Your task to perform on an android device: Find coffee shops on Maps Image 0: 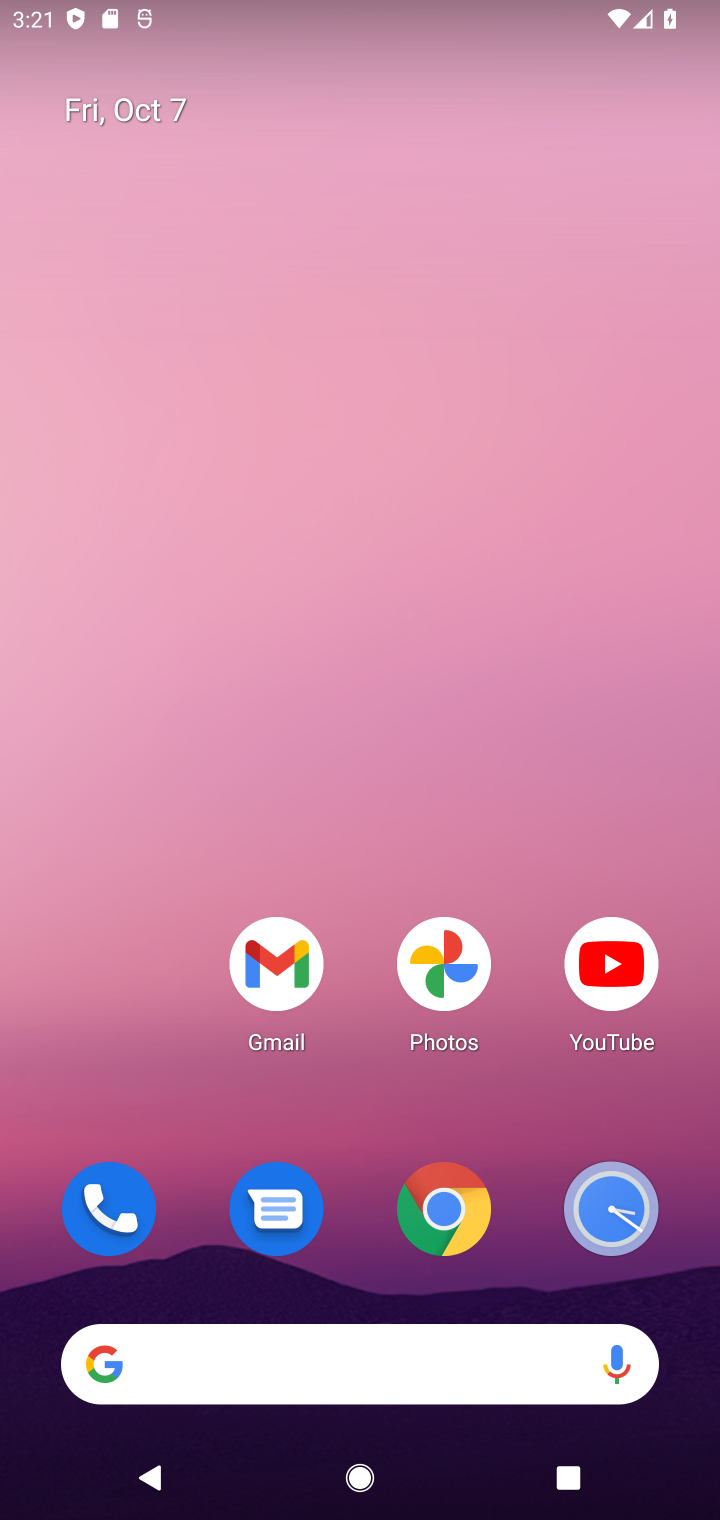
Step 0: press home button
Your task to perform on an android device: Find coffee shops on Maps Image 1: 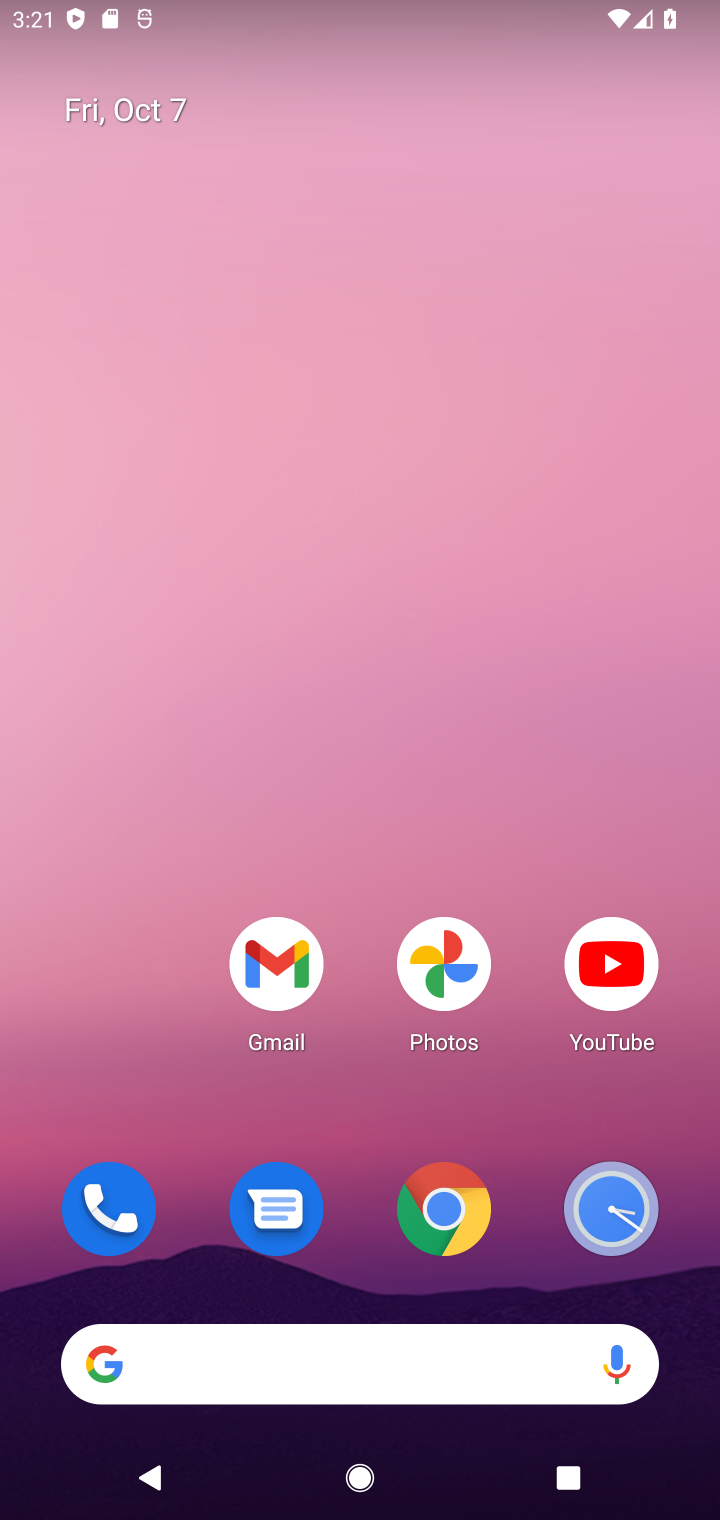
Step 1: drag from (176, 1026) to (98, 211)
Your task to perform on an android device: Find coffee shops on Maps Image 2: 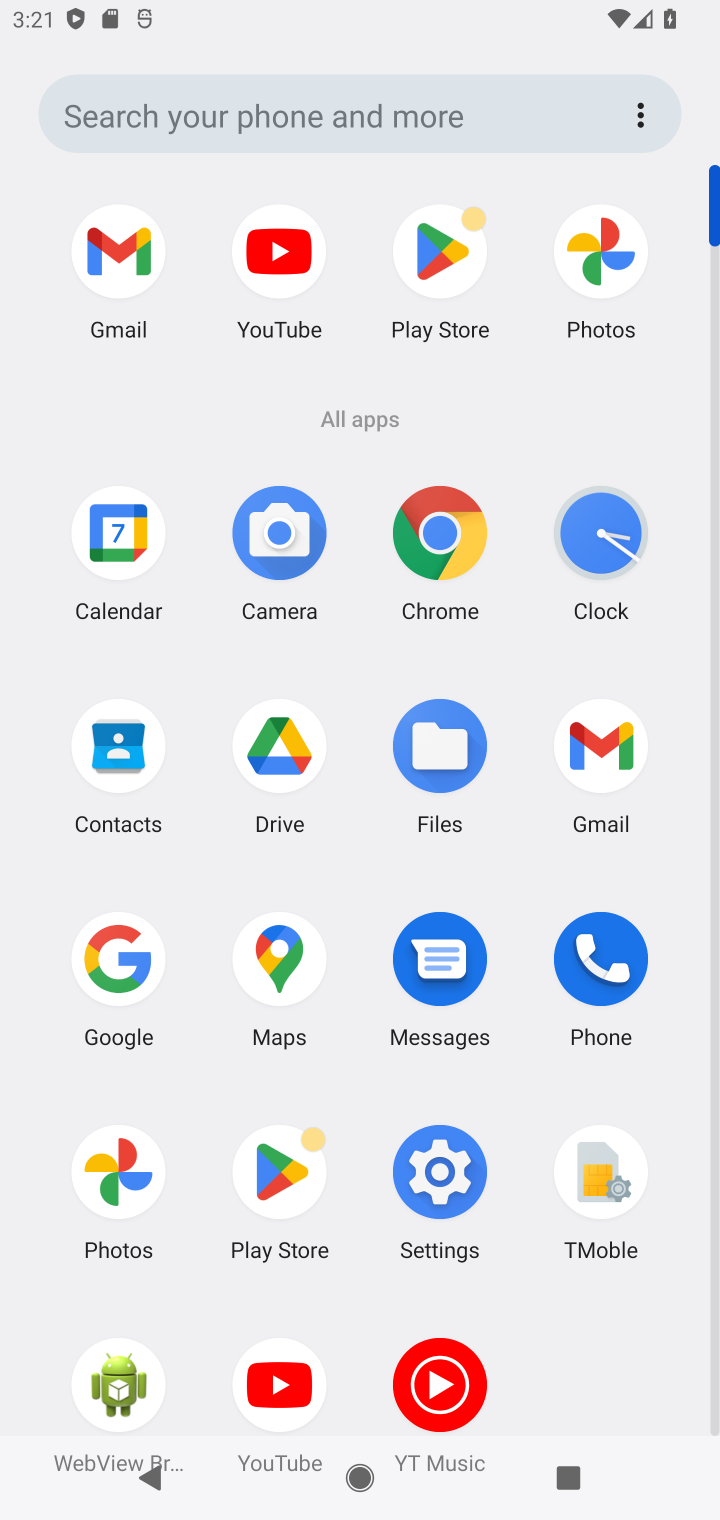
Step 2: click (287, 961)
Your task to perform on an android device: Find coffee shops on Maps Image 3: 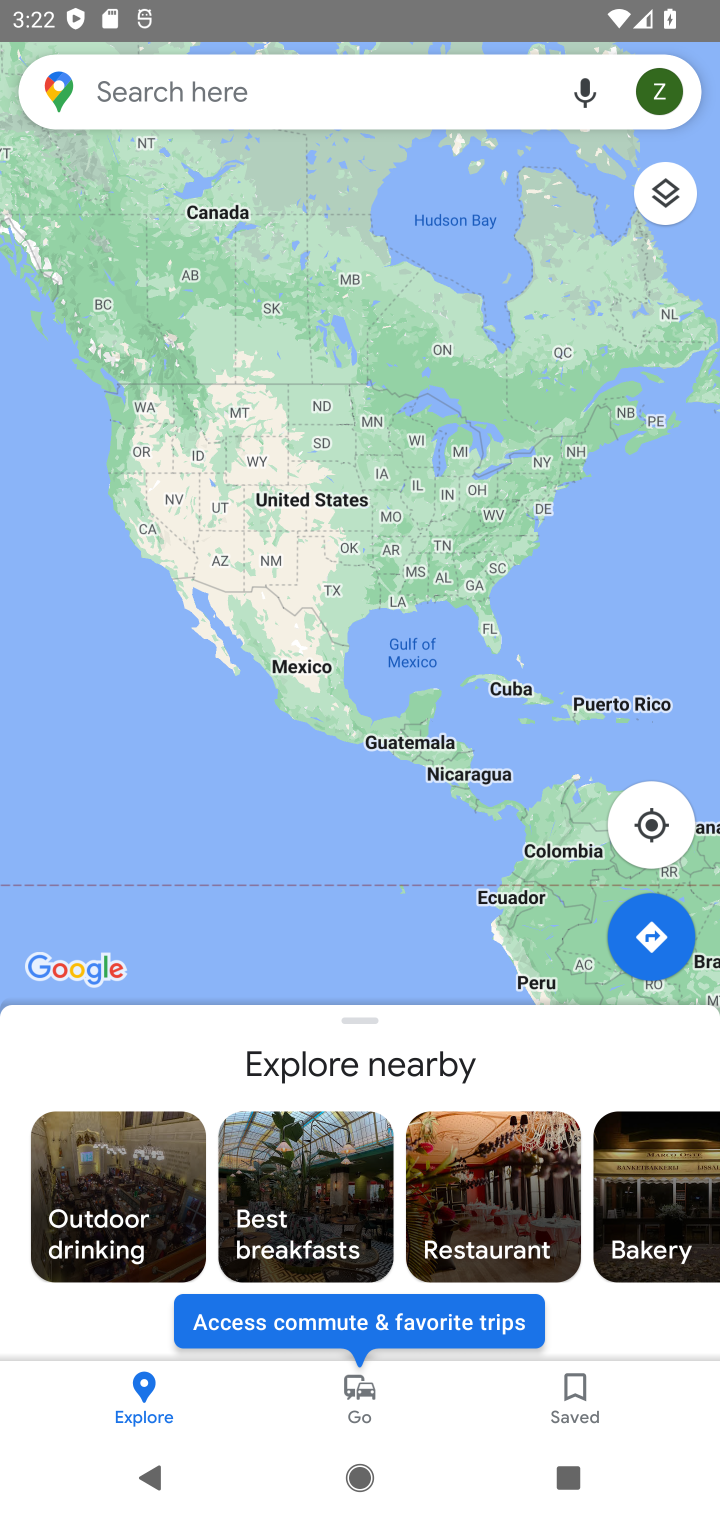
Step 3: click (260, 71)
Your task to perform on an android device: Find coffee shops on Maps Image 4: 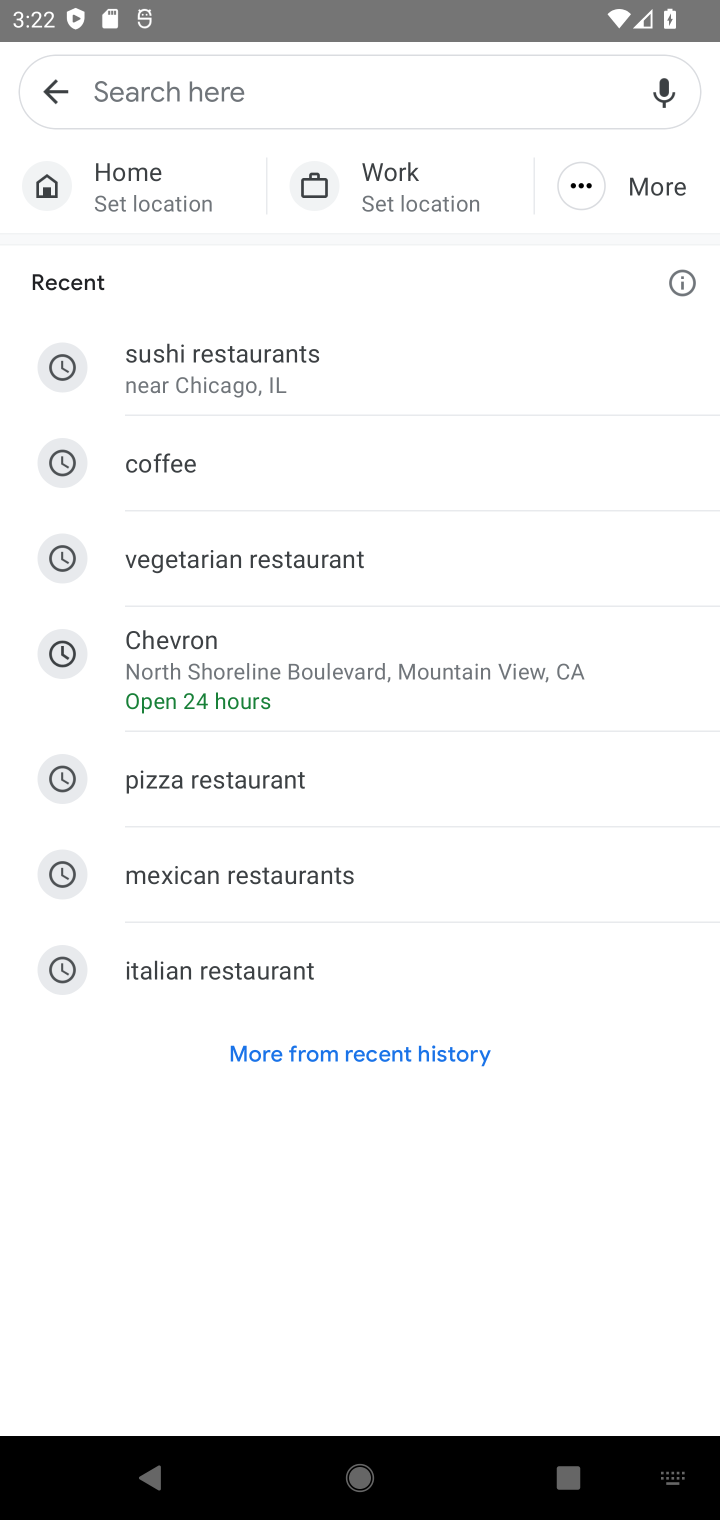
Step 4: press enter
Your task to perform on an android device: Find coffee shops on Maps Image 5: 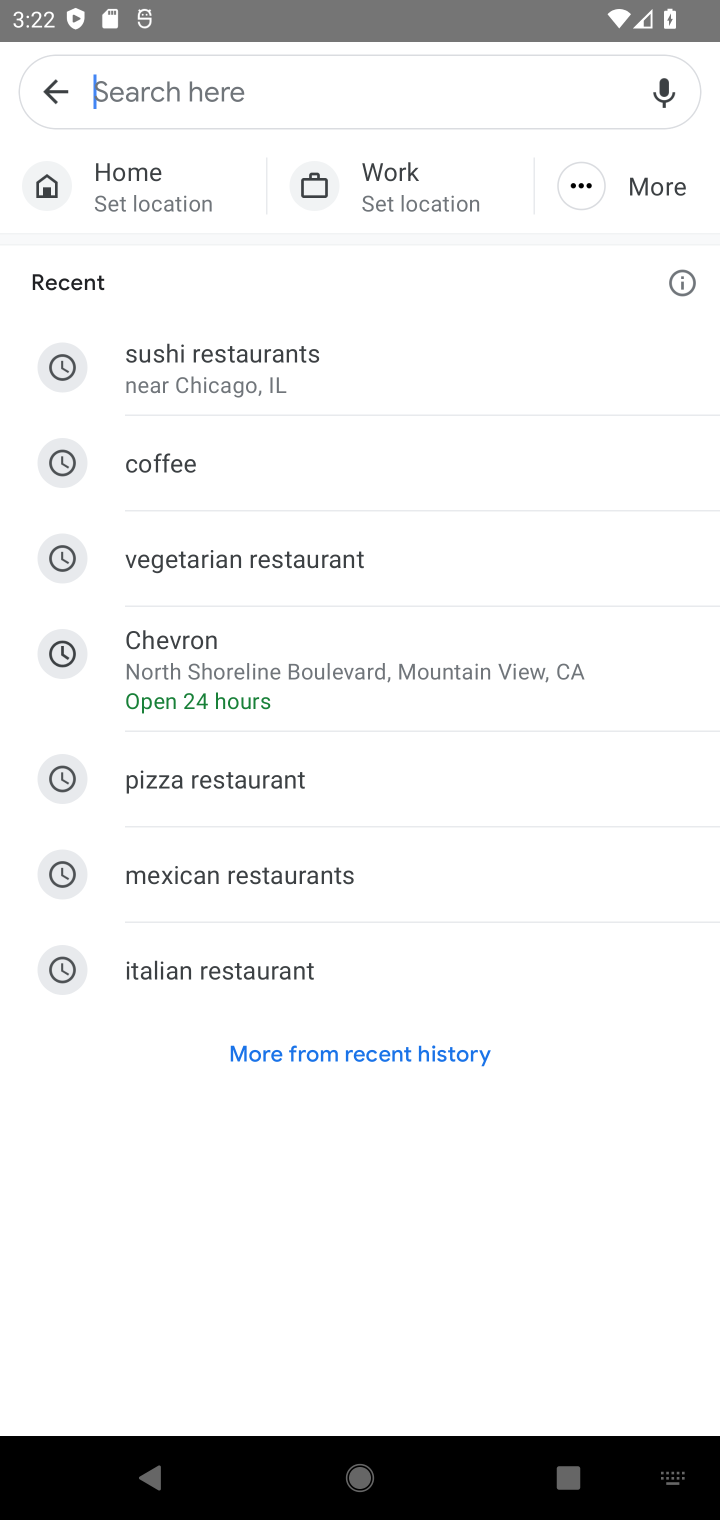
Step 5: type "coffee shops"
Your task to perform on an android device: Find coffee shops on Maps Image 6: 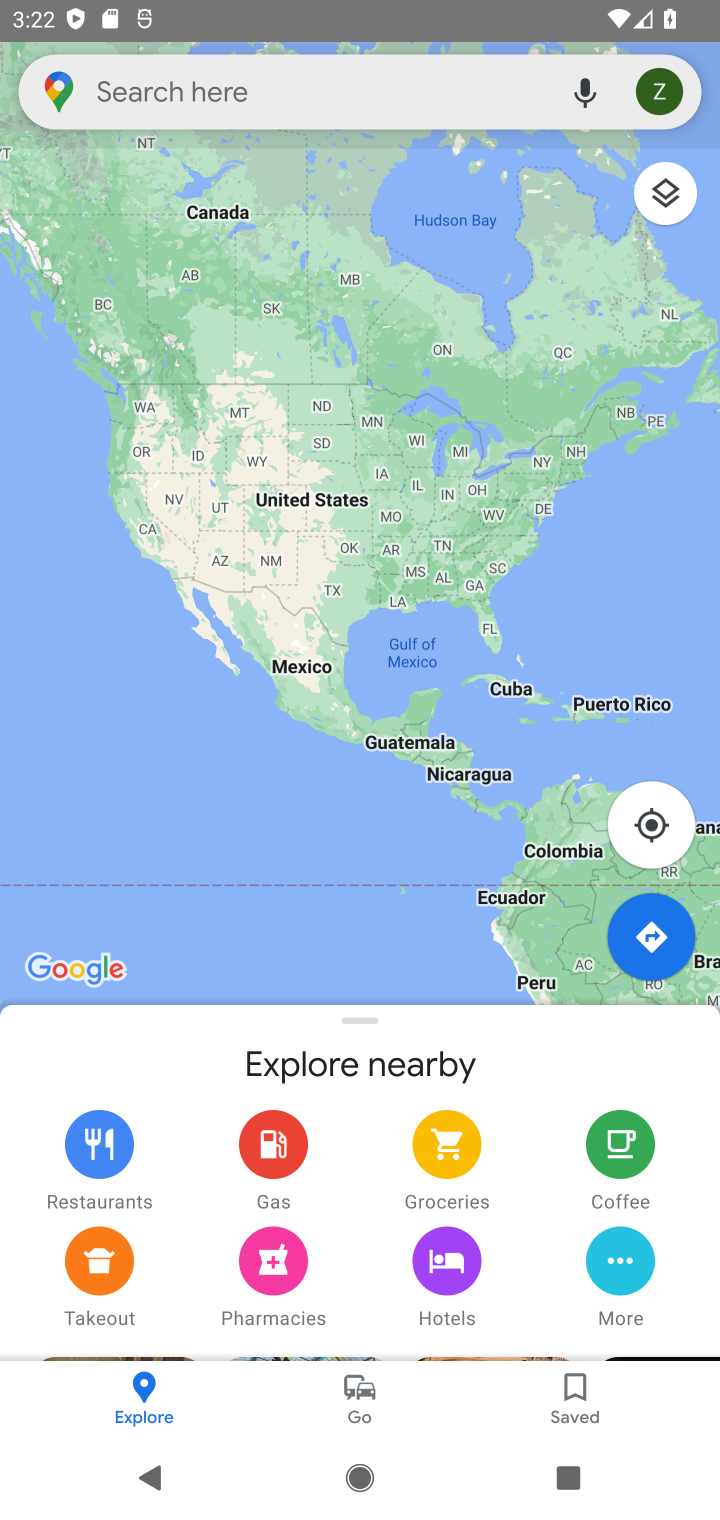
Step 6: click (176, 82)
Your task to perform on an android device: Find coffee shops on Maps Image 7: 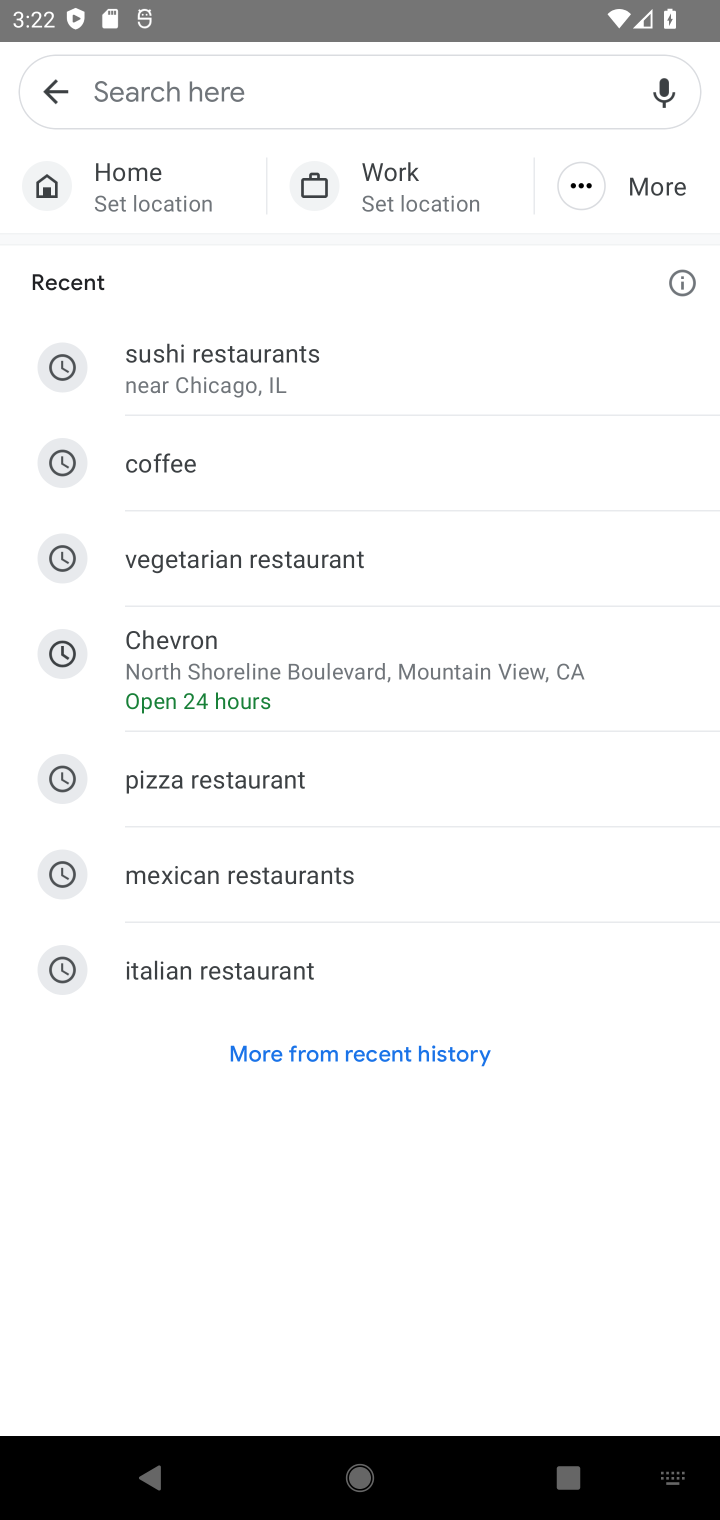
Step 7: click (177, 451)
Your task to perform on an android device: Find coffee shops on Maps Image 8: 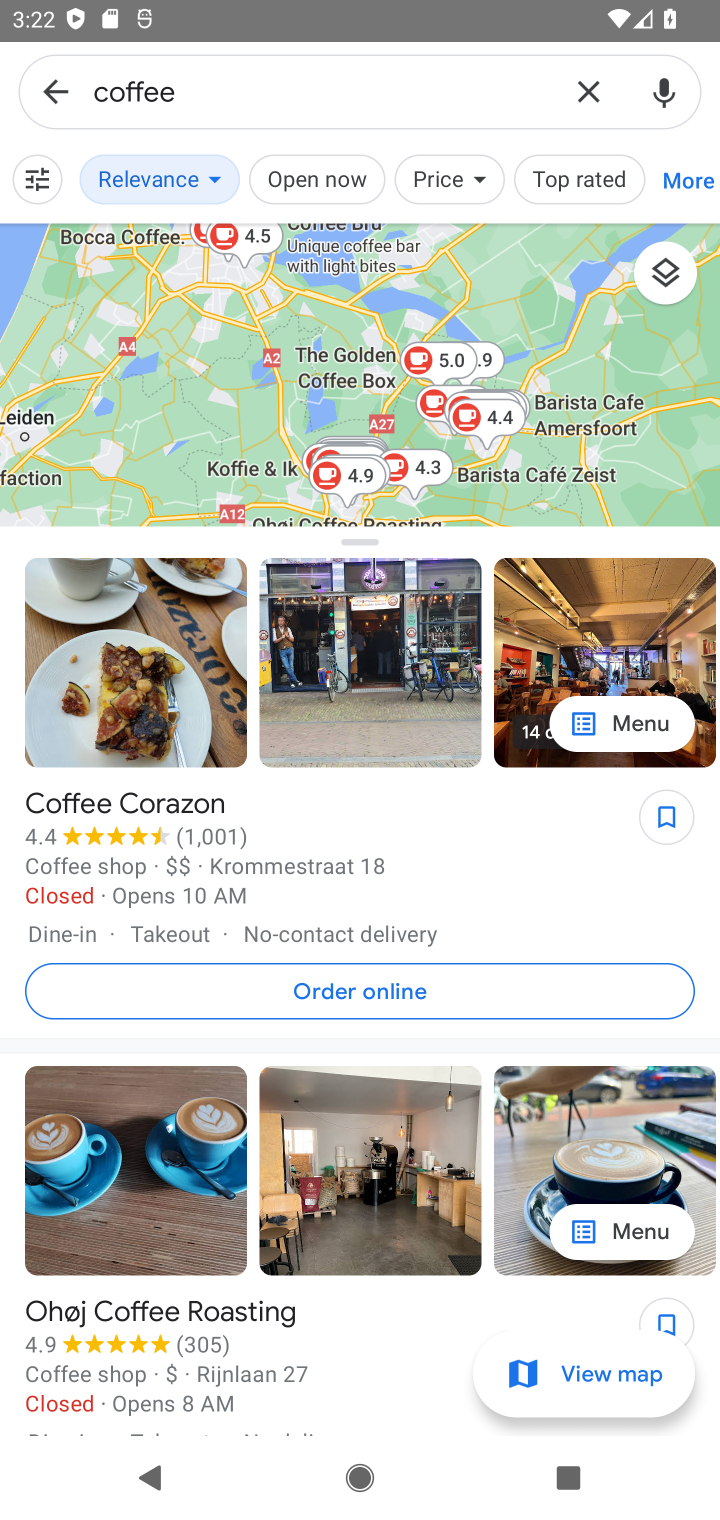
Step 8: task complete